Your task to perform on an android device: See recent photos Image 0: 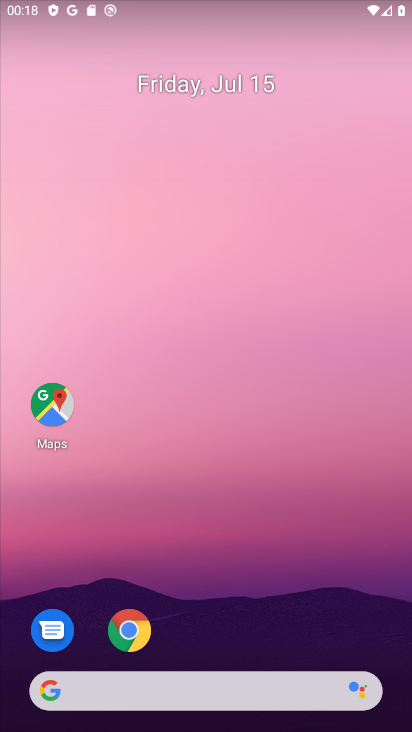
Step 0: drag from (277, 653) to (188, 107)
Your task to perform on an android device: See recent photos Image 1: 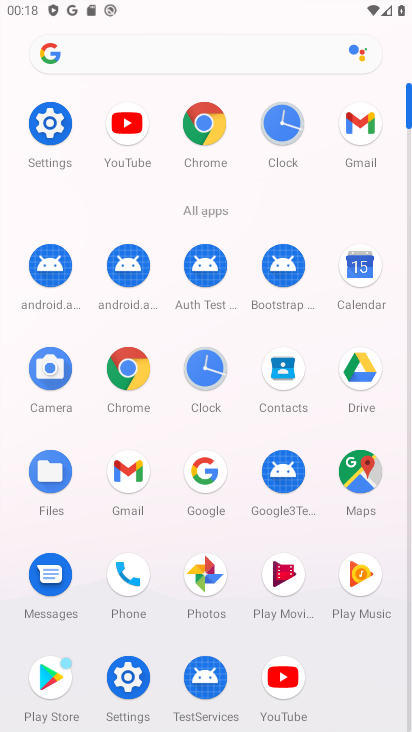
Step 1: click (210, 579)
Your task to perform on an android device: See recent photos Image 2: 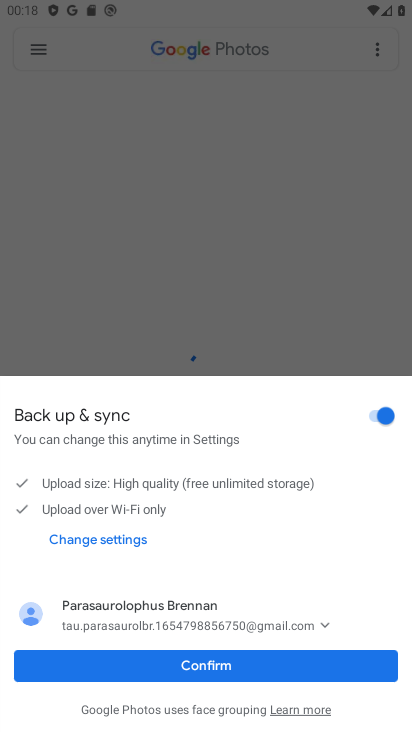
Step 2: click (191, 669)
Your task to perform on an android device: See recent photos Image 3: 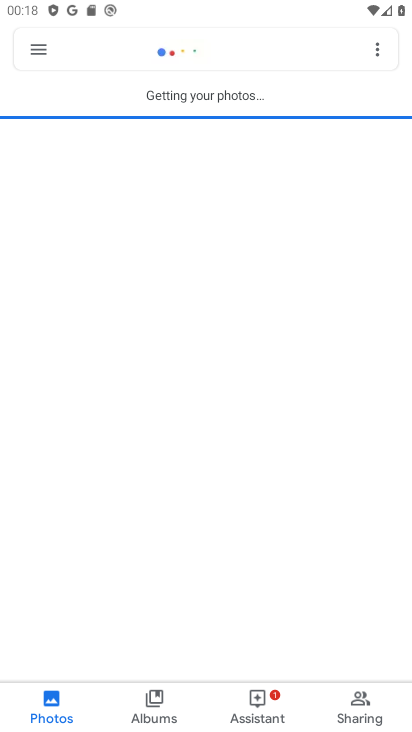
Step 3: task complete